Your task to perform on an android device: refresh tabs in the chrome app Image 0: 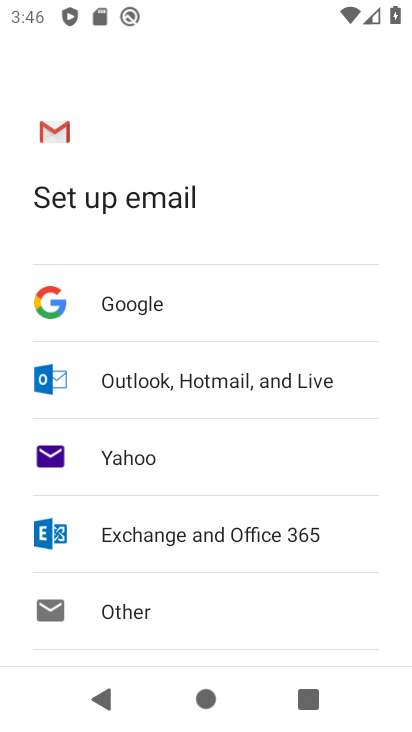
Step 0: press home button
Your task to perform on an android device: refresh tabs in the chrome app Image 1: 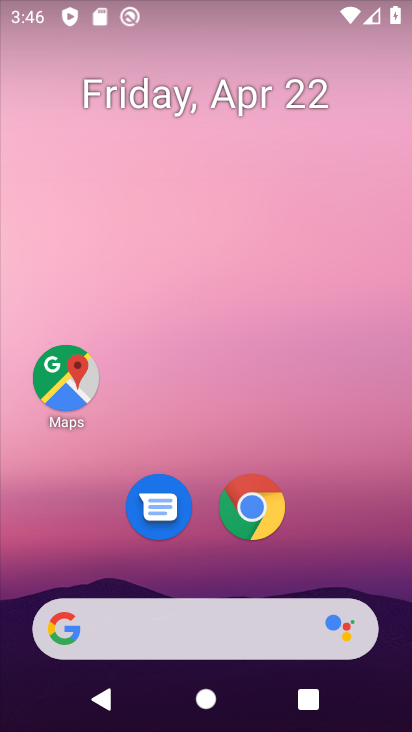
Step 1: click (277, 523)
Your task to perform on an android device: refresh tabs in the chrome app Image 2: 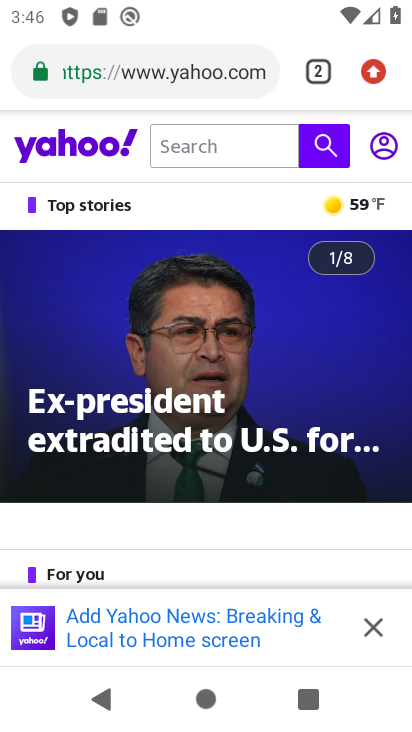
Step 2: click (376, 65)
Your task to perform on an android device: refresh tabs in the chrome app Image 3: 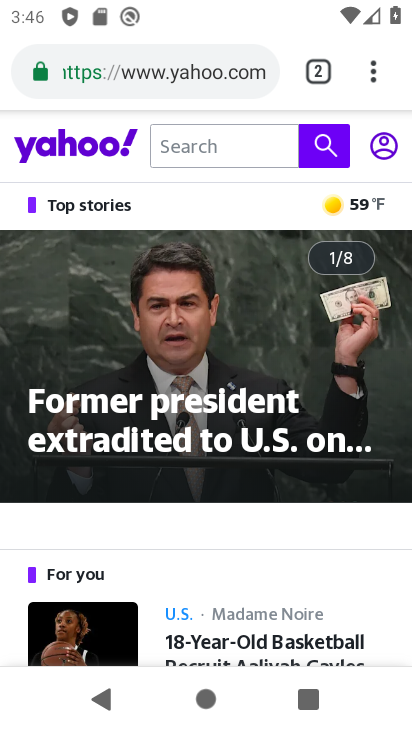
Step 3: click (376, 65)
Your task to perform on an android device: refresh tabs in the chrome app Image 4: 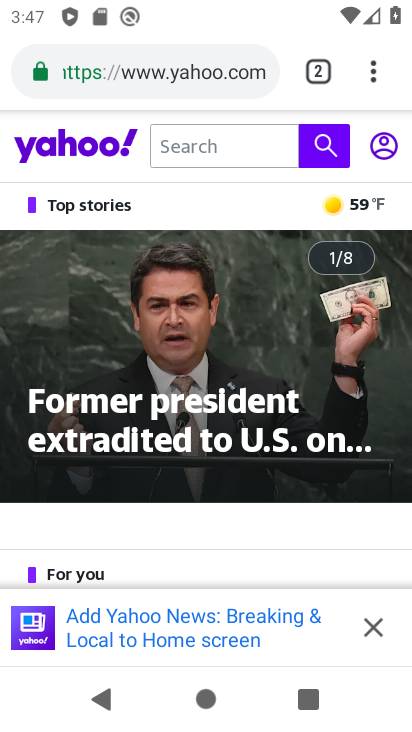
Step 4: task complete